Your task to perform on an android device: open app "Facebook Lite" Image 0: 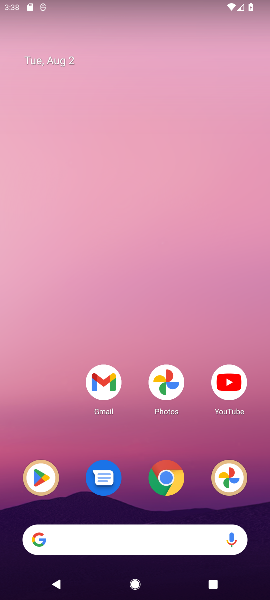
Step 0: drag from (147, 482) to (87, 101)
Your task to perform on an android device: open app "Facebook Lite" Image 1: 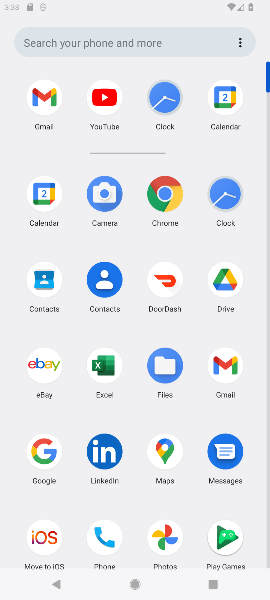
Step 1: drag from (142, 340) to (115, 17)
Your task to perform on an android device: open app "Facebook Lite" Image 2: 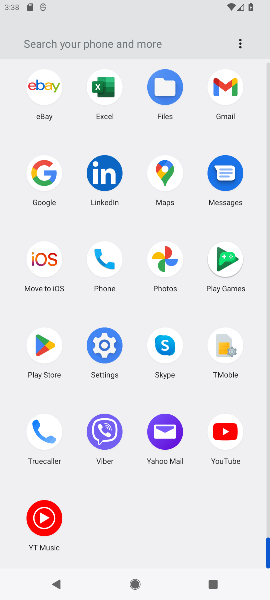
Step 2: drag from (117, 178) to (136, 9)
Your task to perform on an android device: open app "Facebook Lite" Image 3: 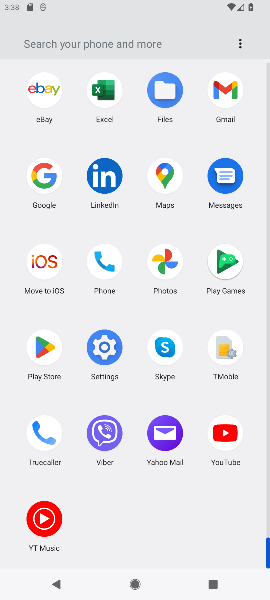
Step 3: drag from (128, 448) to (153, 573)
Your task to perform on an android device: open app "Facebook Lite" Image 4: 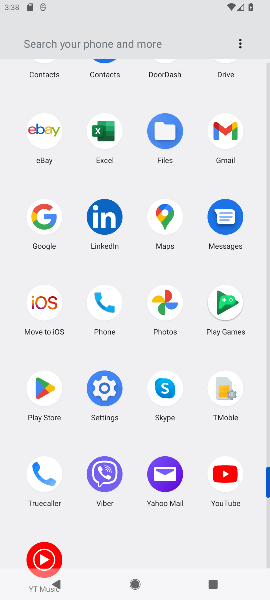
Step 4: drag from (121, 209) to (129, 462)
Your task to perform on an android device: open app "Facebook Lite" Image 5: 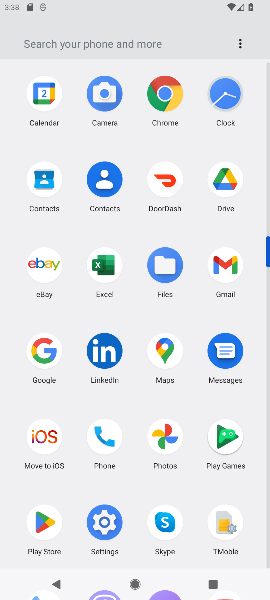
Step 5: drag from (176, 477) to (176, 198)
Your task to perform on an android device: open app "Facebook Lite" Image 6: 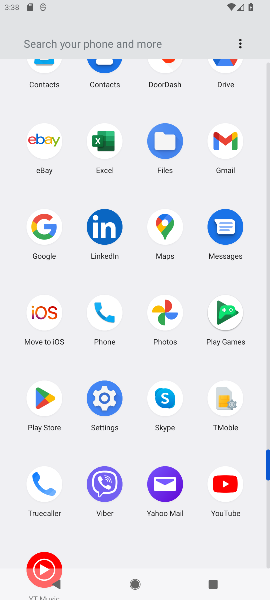
Step 6: click (164, 236)
Your task to perform on an android device: open app "Facebook Lite" Image 7: 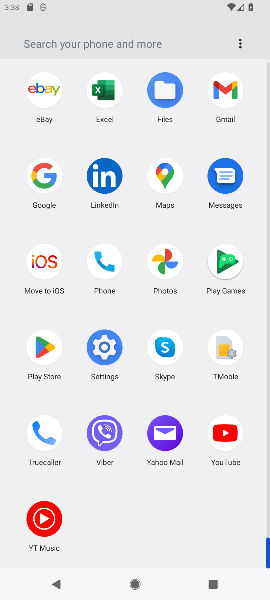
Step 7: click (46, 356)
Your task to perform on an android device: open app "Facebook Lite" Image 8: 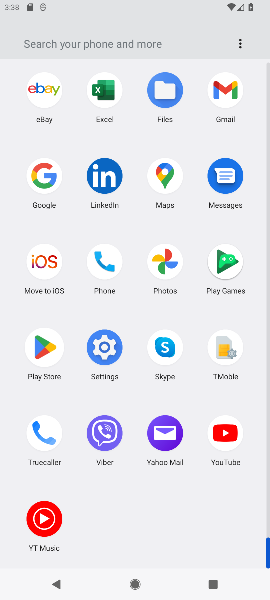
Step 8: click (44, 357)
Your task to perform on an android device: open app "Facebook Lite" Image 9: 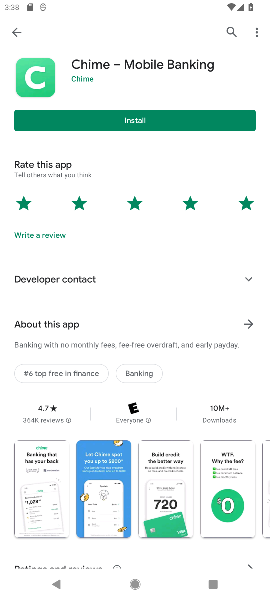
Step 9: click (16, 28)
Your task to perform on an android device: open app "Facebook Lite" Image 10: 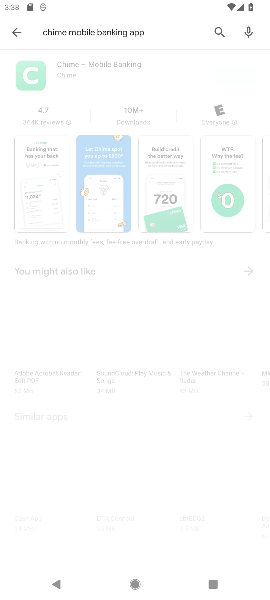
Step 10: click (15, 27)
Your task to perform on an android device: open app "Facebook Lite" Image 11: 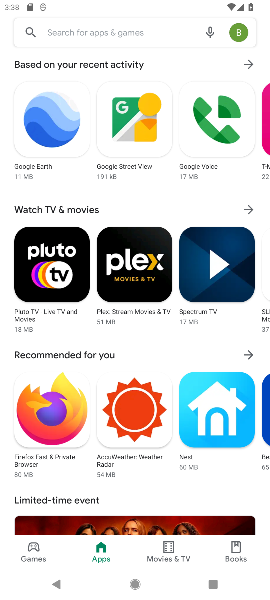
Step 11: click (58, 23)
Your task to perform on an android device: open app "Facebook Lite" Image 12: 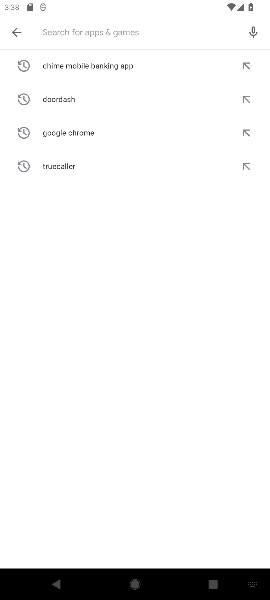
Step 12: click (66, 33)
Your task to perform on an android device: open app "Facebook Lite" Image 13: 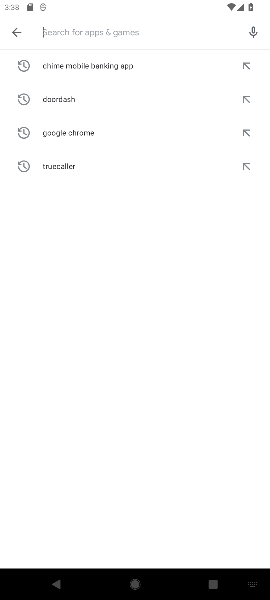
Step 13: type "facebook lite"
Your task to perform on an android device: open app "Facebook Lite" Image 14: 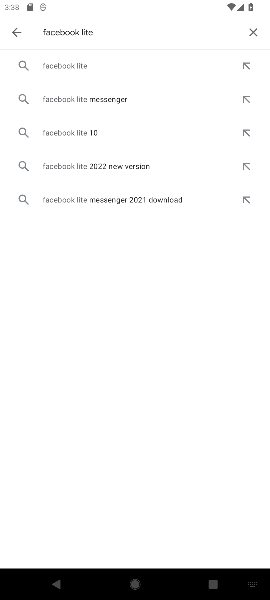
Step 14: click (63, 66)
Your task to perform on an android device: open app "Facebook Lite" Image 15: 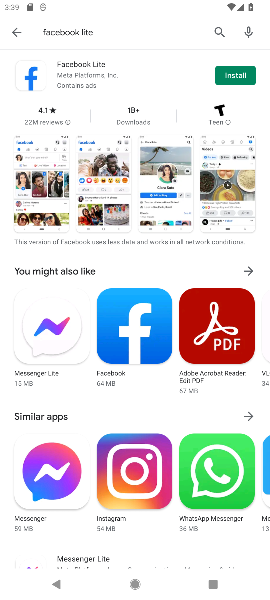
Step 15: click (239, 76)
Your task to perform on an android device: open app "Facebook Lite" Image 16: 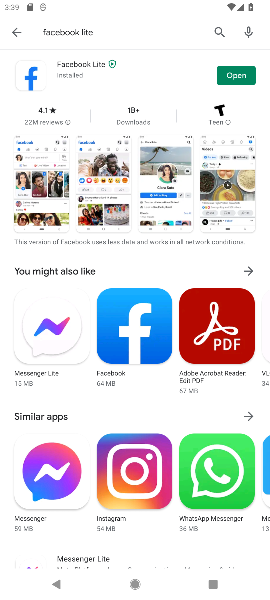
Step 16: click (239, 76)
Your task to perform on an android device: open app "Facebook Lite" Image 17: 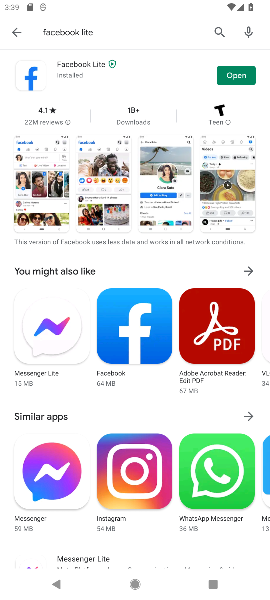
Step 17: click (239, 76)
Your task to perform on an android device: open app "Facebook Lite" Image 18: 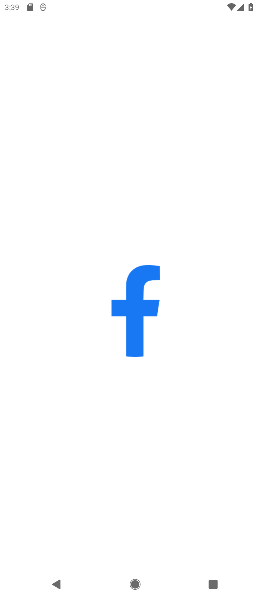
Step 18: click (239, 76)
Your task to perform on an android device: open app "Facebook Lite" Image 19: 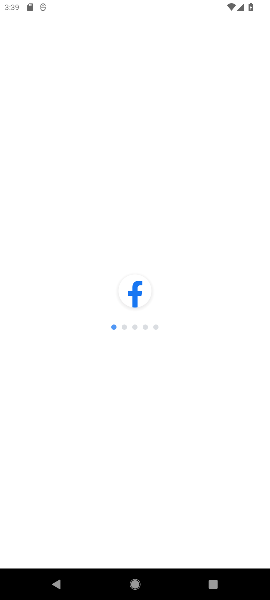
Step 19: drag from (143, 238) to (131, 151)
Your task to perform on an android device: open app "Facebook Lite" Image 20: 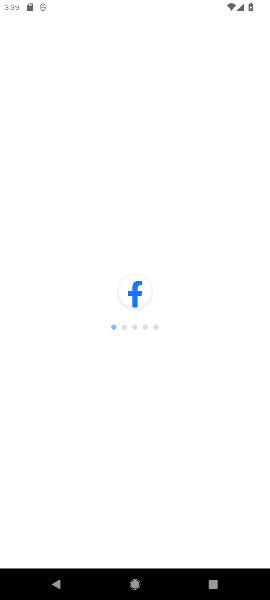
Step 20: drag from (142, 404) to (121, 170)
Your task to perform on an android device: open app "Facebook Lite" Image 21: 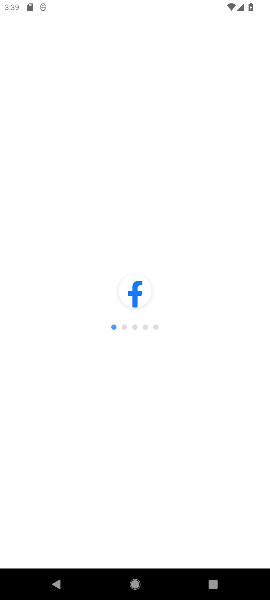
Step 21: drag from (182, 366) to (181, 106)
Your task to perform on an android device: open app "Facebook Lite" Image 22: 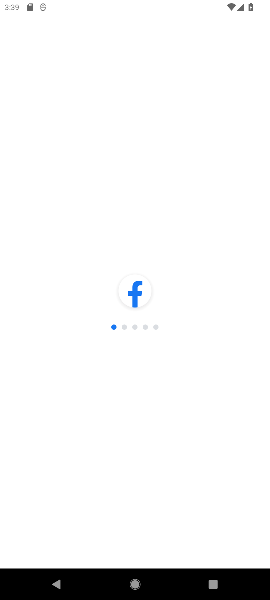
Step 22: drag from (188, 350) to (157, 101)
Your task to perform on an android device: open app "Facebook Lite" Image 23: 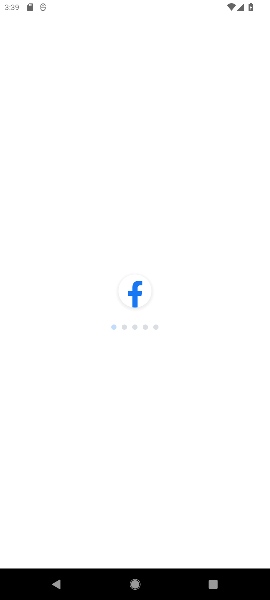
Step 23: drag from (143, 327) to (120, 78)
Your task to perform on an android device: open app "Facebook Lite" Image 24: 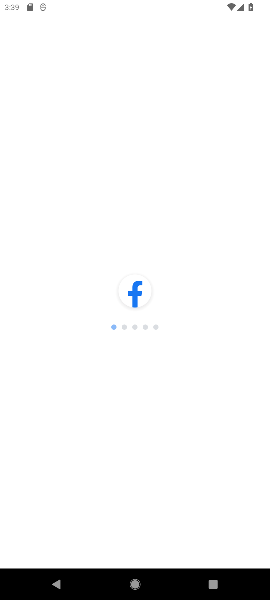
Step 24: drag from (135, 385) to (98, 168)
Your task to perform on an android device: open app "Facebook Lite" Image 25: 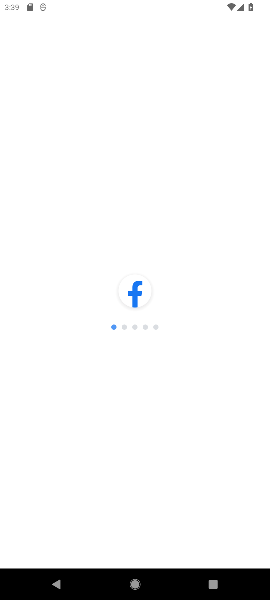
Step 25: drag from (203, 326) to (202, 99)
Your task to perform on an android device: open app "Facebook Lite" Image 26: 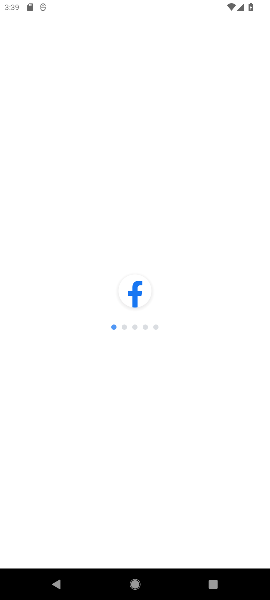
Step 26: drag from (212, 383) to (175, 141)
Your task to perform on an android device: open app "Facebook Lite" Image 27: 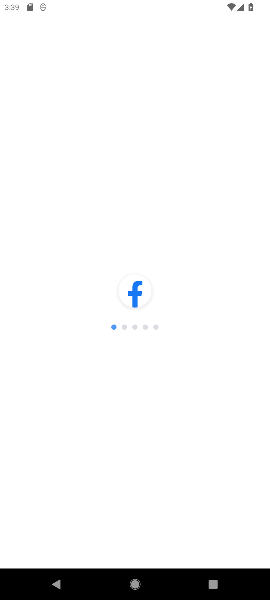
Step 27: click (111, 358)
Your task to perform on an android device: open app "Facebook Lite" Image 28: 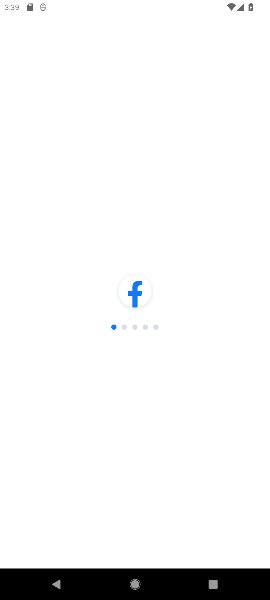
Step 28: click (165, 352)
Your task to perform on an android device: open app "Facebook Lite" Image 29: 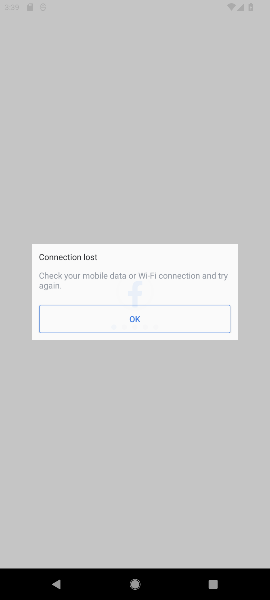
Step 29: click (217, 275)
Your task to perform on an android device: open app "Facebook Lite" Image 30: 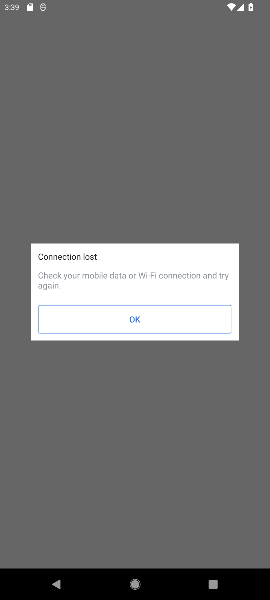
Step 30: click (183, 120)
Your task to perform on an android device: open app "Facebook Lite" Image 31: 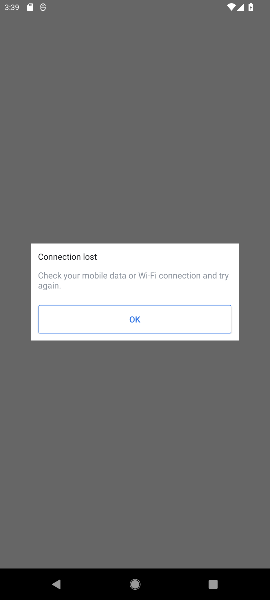
Step 31: click (187, 122)
Your task to perform on an android device: open app "Facebook Lite" Image 32: 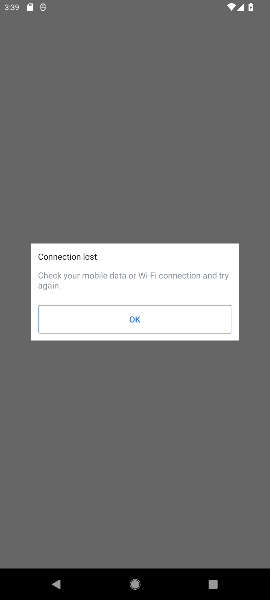
Step 32: click (193, 122)
Your task to perform on an android device: open app "Facebook Lite" Image 33: 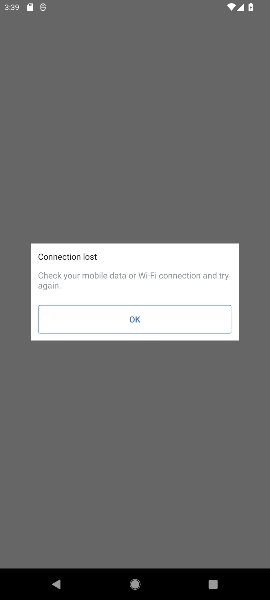
Step 33: click (196, 121)
Your task to perform on an android device: open app "Facebook Lite" Image 34: 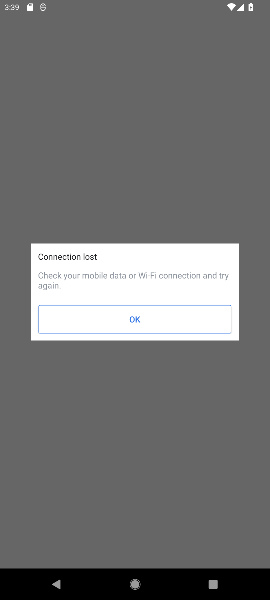
Step 34: click (203, 122)
Your task to perform on an android device: open app "Facebook Lite" Image 35: 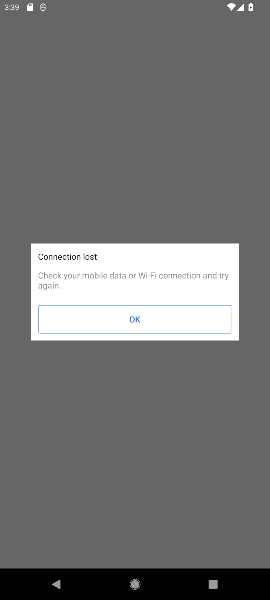
Step 35: click (134, 319)
Your task to perform on an android device: open app "Facebook Lite" Image 36: 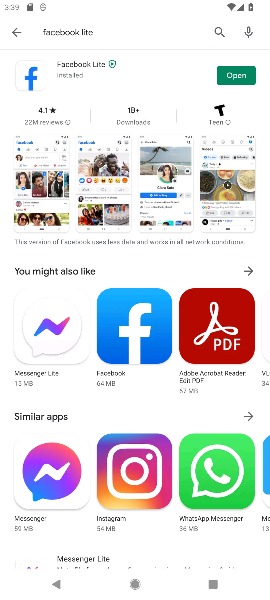
Step 36: click (234, 72)
Your task to perform on an android device: open app "Facebook Lite" Image 37: 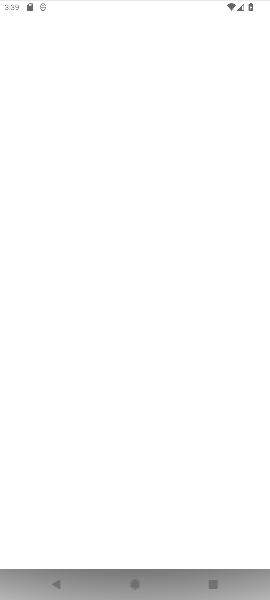
Step 37: task complete